Your task to perform on an android device: turn pop-ups off in chrome Image 0: 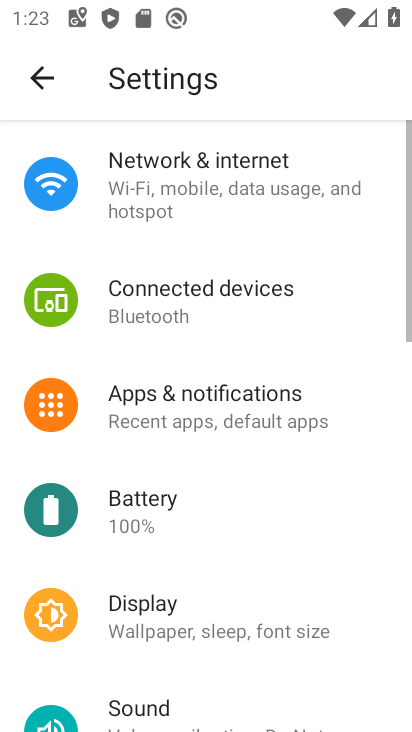
Step 0: drag from (270, 670) to (175, 56)
Your task to perform on an android device: turn pop-ups off in chrome Image 1: 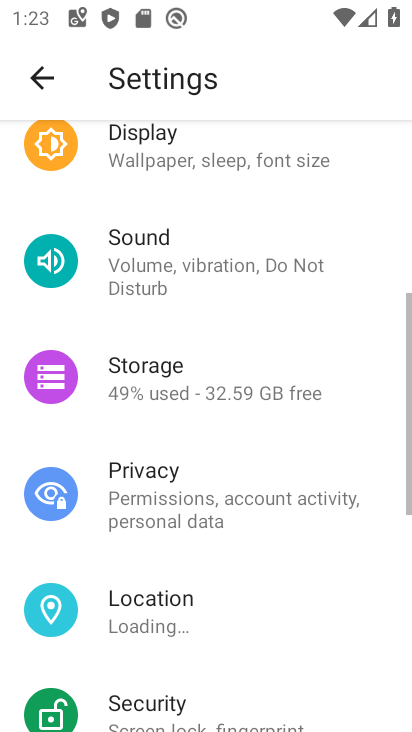
Step 1: click (42, 78)
Your task to perform on an android device: turn pop-ups off in chrome Image 2: 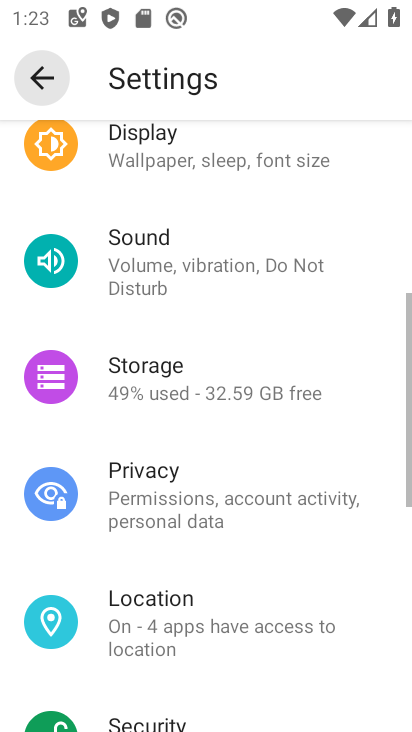
Step 2: click (43, 77)
Your task to perform on an android device: turn pop-ups off in chrome Image 3: 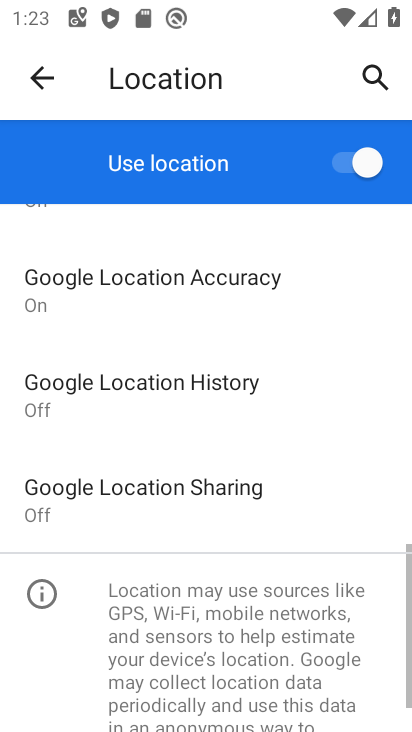
Step 3: click (41, 71)
Your task to perform on an android device: turn pop-ups off in chrome Image 4: 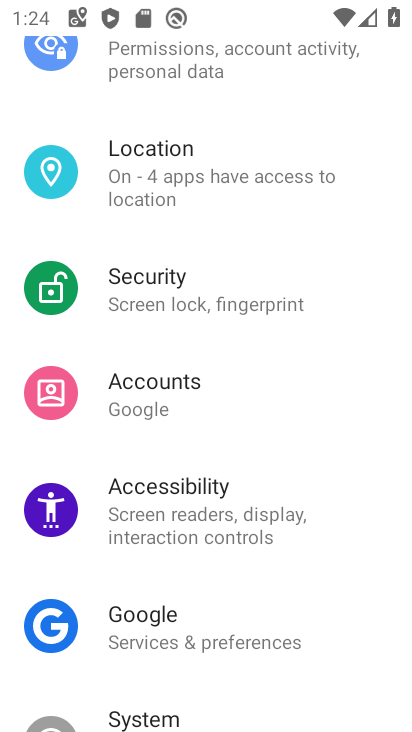
Step 4: press back button
Your task to perform on an android device: turn pop-ups off in chrome Image 5: 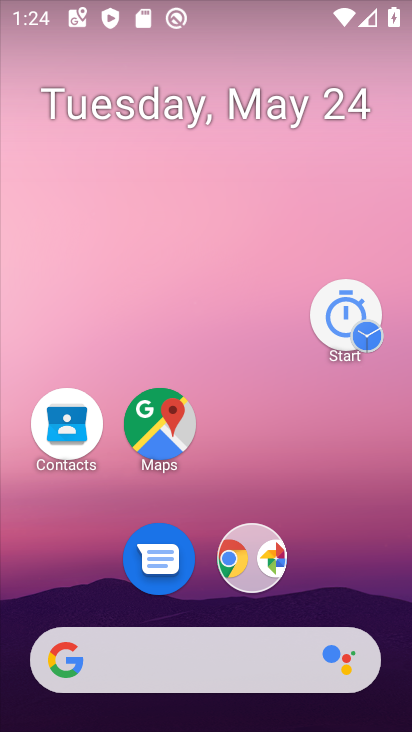
Step 5: drag from (327, 654) to (218, 149)
Your task to perform on an android device: turn pop-ups off in chrome Image 6: 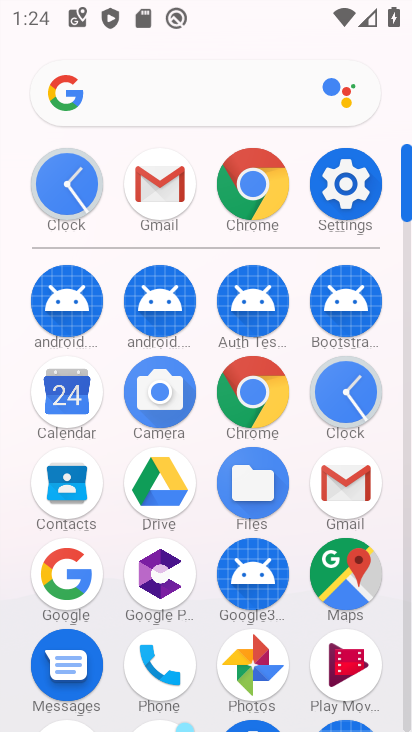
Step 6: click (242, 186)
Your task to perform on an android device: turn pop-ups off in chrome Image 7: 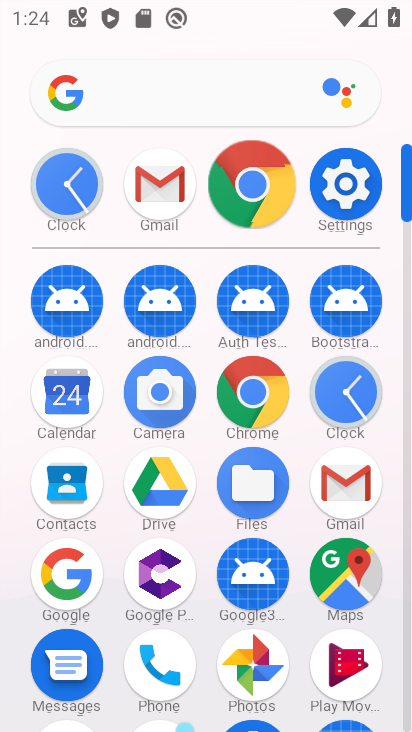
Step 7: click (243, 186)
Your task to perform on an android device: turn pop-ups off in chrome Image 8: 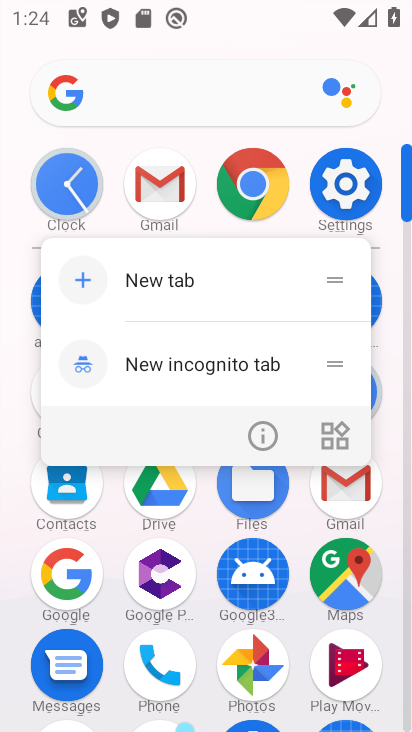
Step 8: click (247, 187)
Your task to perform on an android device: turn pop-ups off in chrome Image 9: 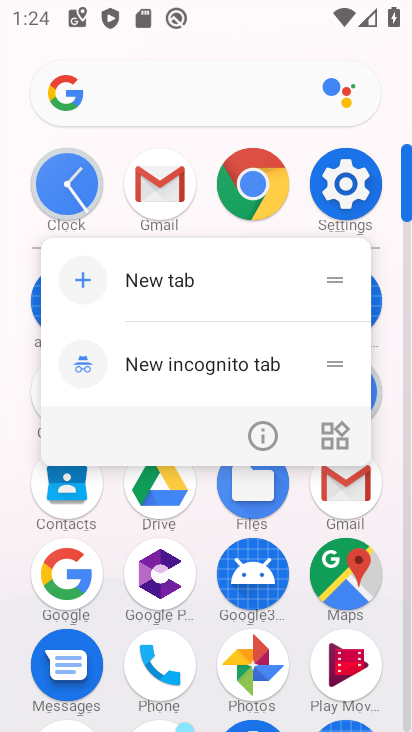
Step 9: click (248, 187)
Your task to perform on an android device: turn pop-ups off in chrome Image 10: 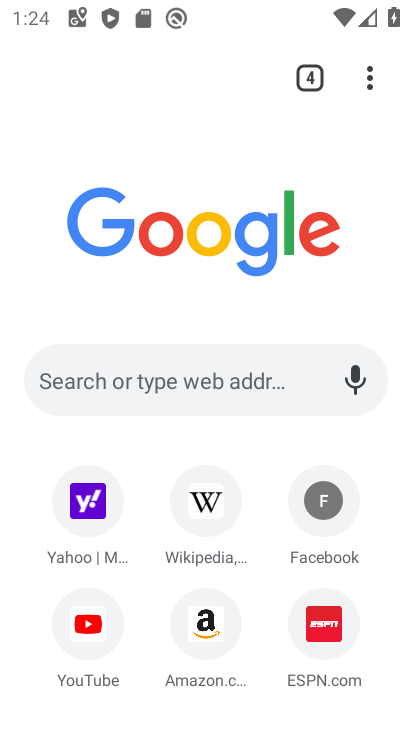
Step 10: drag from (172, 698) to (265, 460)
Your task to perform on an android device: turn pop-ups off in chrome Image 11: 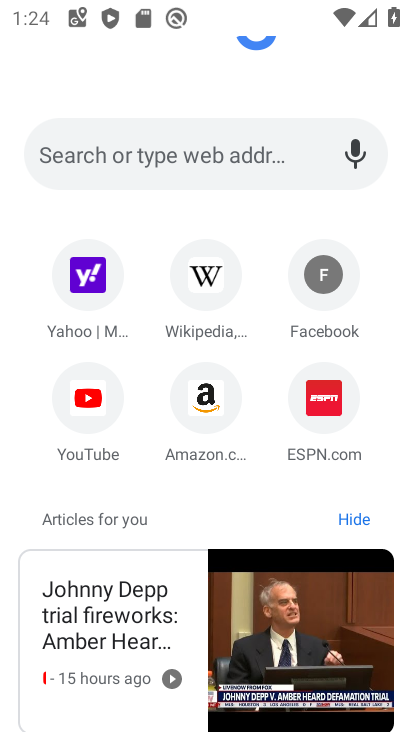
Step 11: drag from (283, 588) to (219, 216)
Your task to perform on an android device: turn pop-ups off in chrome Image 12: 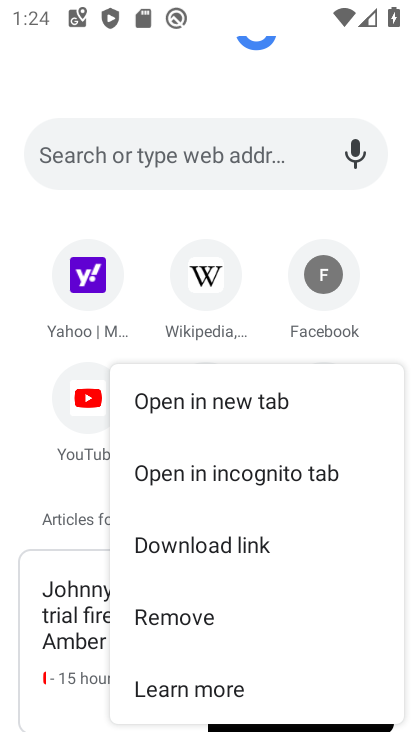
Step 12: drag from (299, 669) to (200, 308)
Your task to perform on an android device: turn pop-ups off in chrome Image 13: 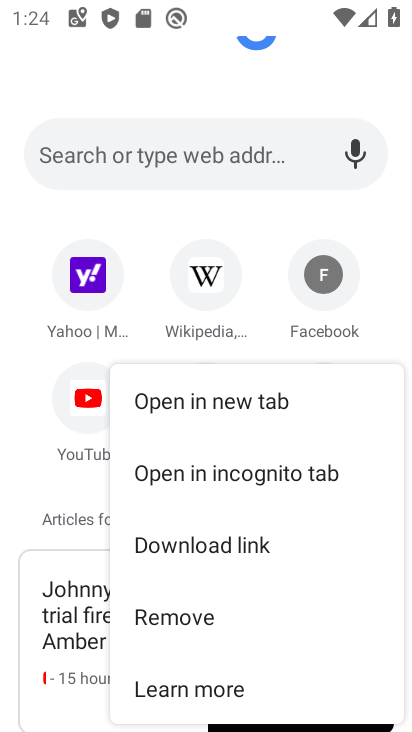
Step 13: press back button
Your task to perform on an android device: turn pop-ups off in chrome Image 14: 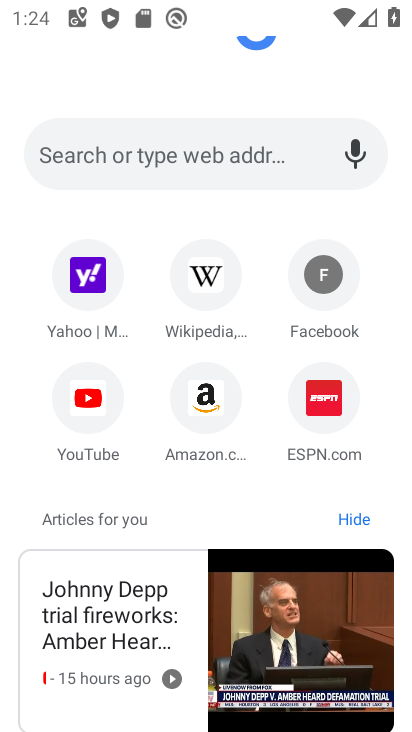
Step 14: drag from (50, 536) to (67, 246)
Your task to perform on an android device: turn pop-ups off in chrome Image 15: 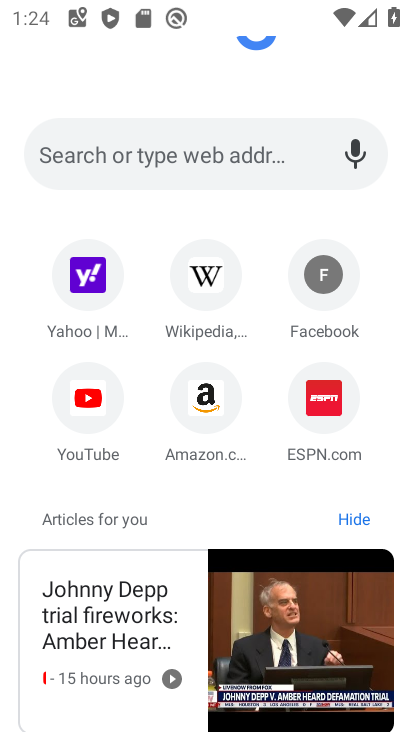
Step 15: drag from (75, 526) to (91, 154)
Your task to perform on an android device: turn pop-ups off in chrome Image 16: 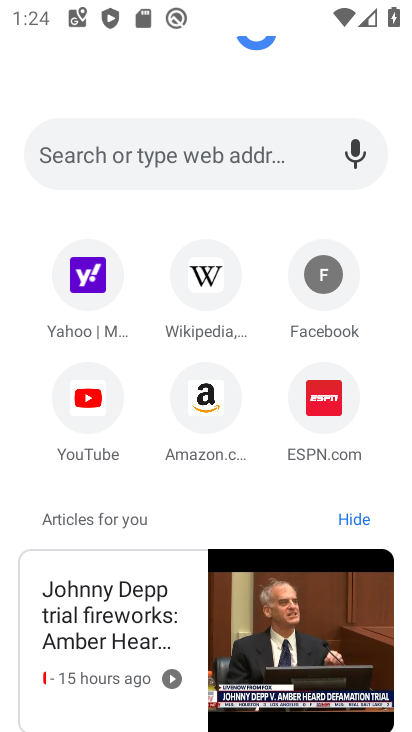
Step 16: drag from (77, 416) to (92, 515)
Your task to perform on an android device: turn pop-ups off in chrome Image 17: 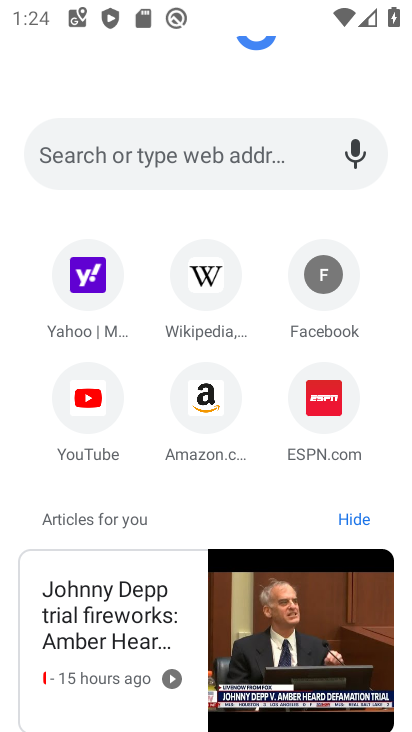
Step 17: press home button
Your task to perform on an android device: turn pop-ups off in chrome Image 18: 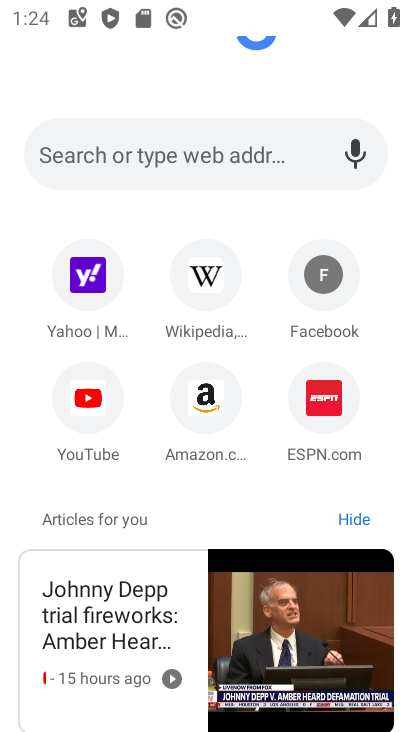
Step 18: press home button
Your task to perform on an android device: turn pop-ups off in chrome Image 19: 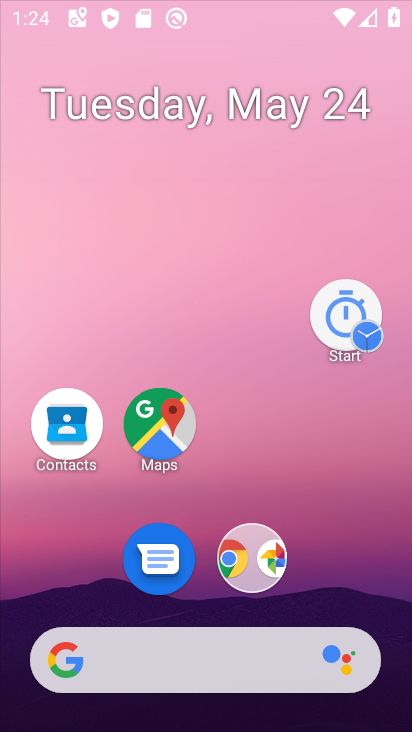
Step 19: press home button
Your task to perform on an android device: turn pop-ups off in chrome Image 20: 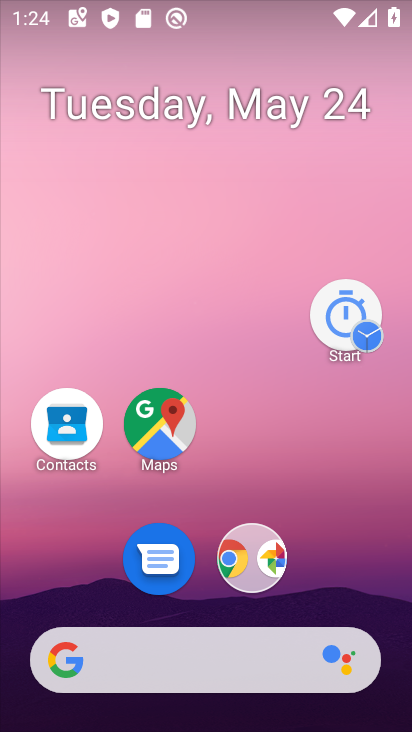
Step 20: drag from (353, 668) to (278, 69)
Your task to perform on an android device: turn pop-ups off in chrome Image 21: 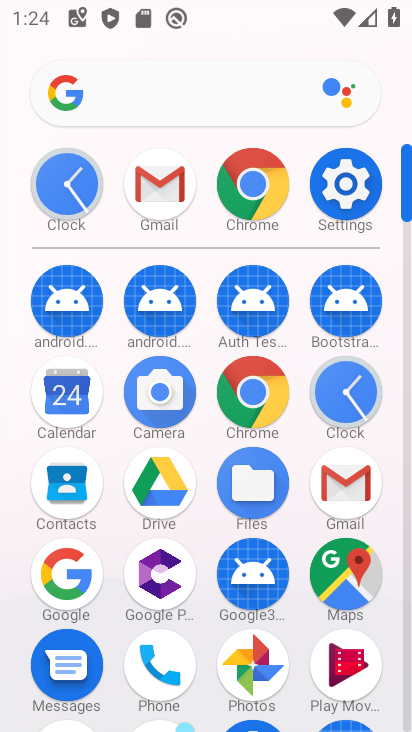
Step 21: click (254, 168)
Your task to perform on an android device: turn pop-ups off in chrome Image 22: 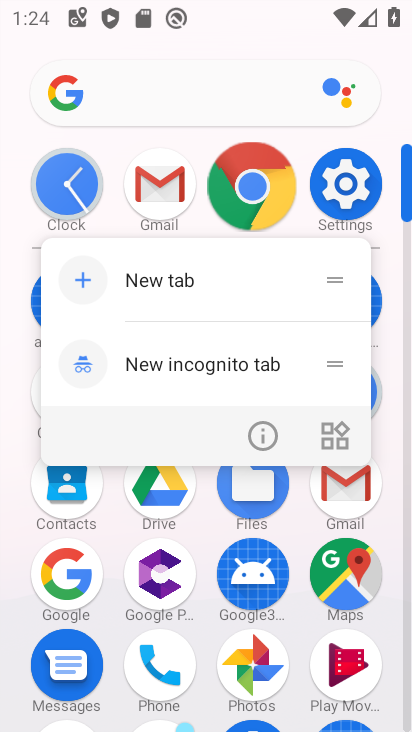
Step 22: click (256, 174)
Your task to perform on an android device: turn pop-ups off in chrome Image 23: 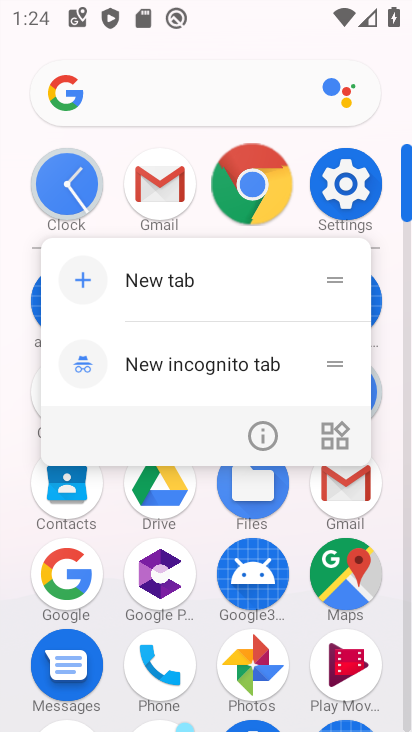
Step 23: click (254, 175)
Your task to perform on an android device: turn pop-ups off in chrome Image 24: 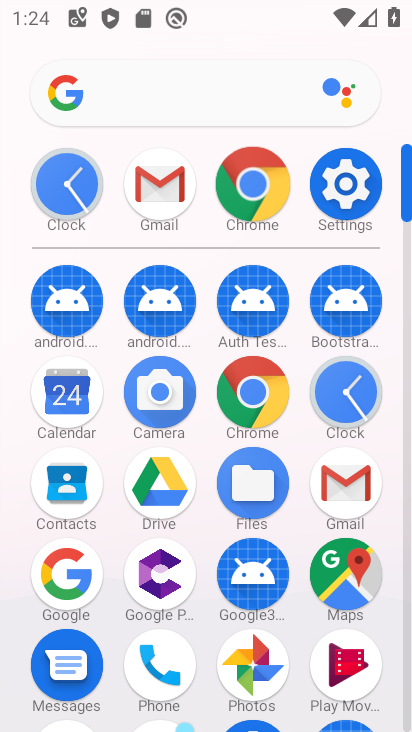
Step 24: click (253, 177)
Your task to perform on an android device: turn pop-ups off in chrome Image 25: 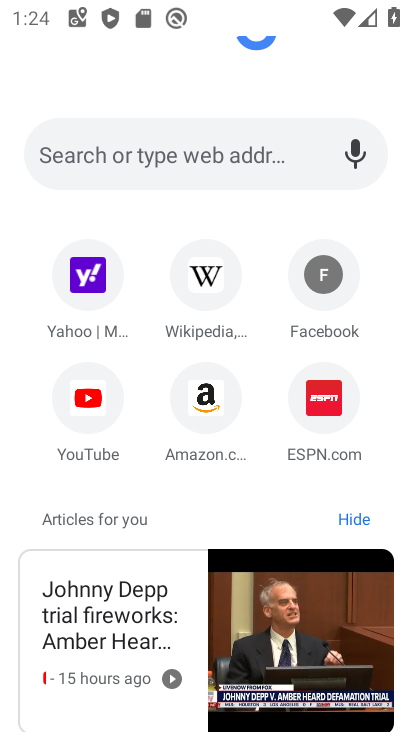
Step 25: drag from (339, 155) to (266, 554)
Your task to perform on an android device: turn pop-ups off in chrome Image 26: 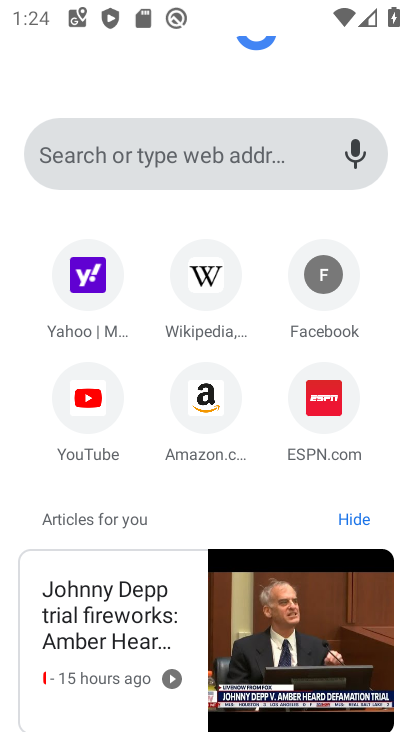
Step 26: drag from (235, 233) to (247, 564)
Your task to perform on an android device: turn pop-ups off in chrome Image 27: 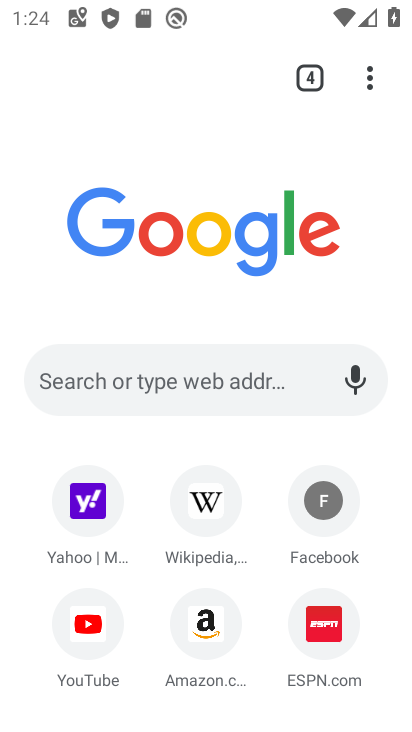
Step 27: drag from (200, 204) to (221, 569)
Your task to perform on an android device: turn pop-ups off in chrome Image 28: 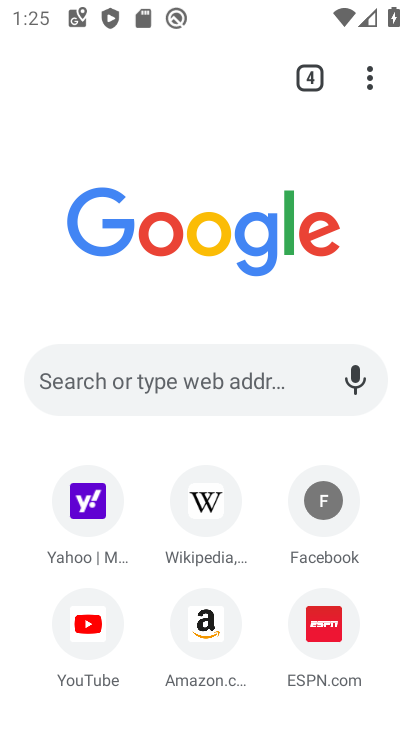
Step 28: click (362, 81)
Your task to perform on an android device: turn pop-ups off in chrome Image 29: 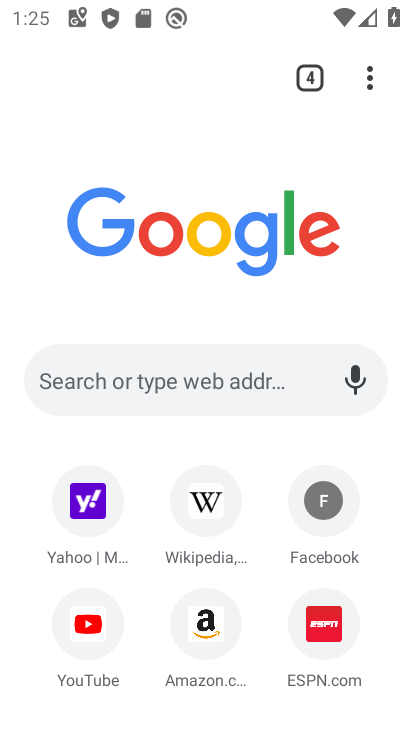
Step 29: click (371, 78)
Your task to perform on an android device: turn pop-ups off in chrome Image 30: 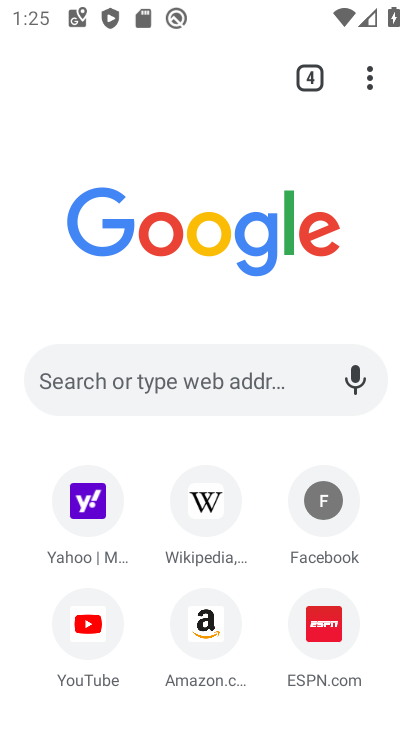
Step 30: drag from (365, 83) to (81, 656)
Your task to perform on an android device: turn pop-ups off in chrome Image 31: 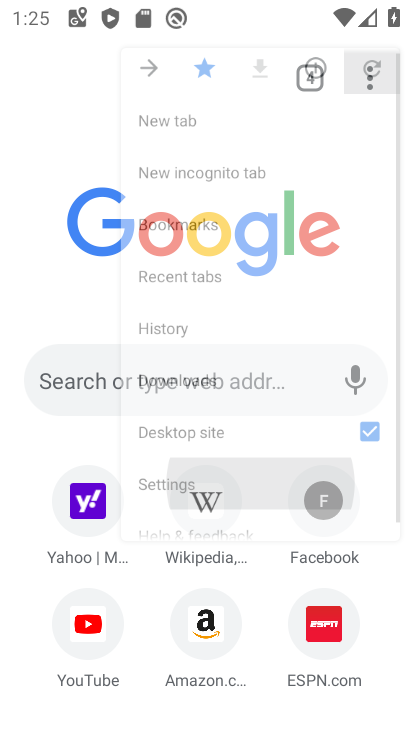
Step 31: click (82, 645)
Your task to perform on an android device: turn pop-ups off in chrome Image 32: 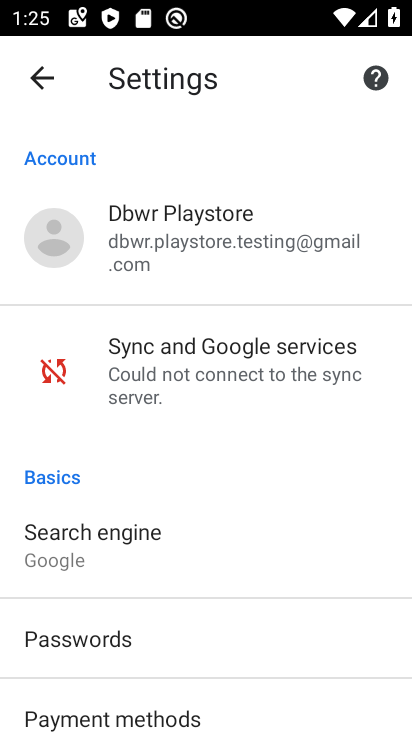
Step 32: drag from (136, 462) to (183, 137)
Your task to perform on an android device: turn pop-ups off in chrome Image 33: 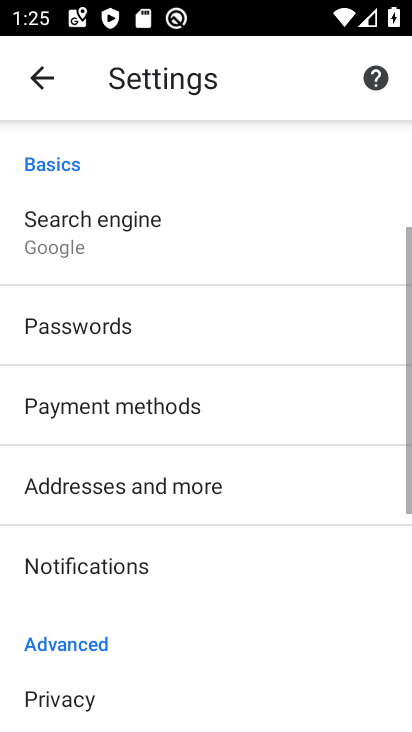
Step 33: drag from (182, 493) to (192, 67)
Your task to perform on an android device: turn pop-ups off in chrome Image 34: 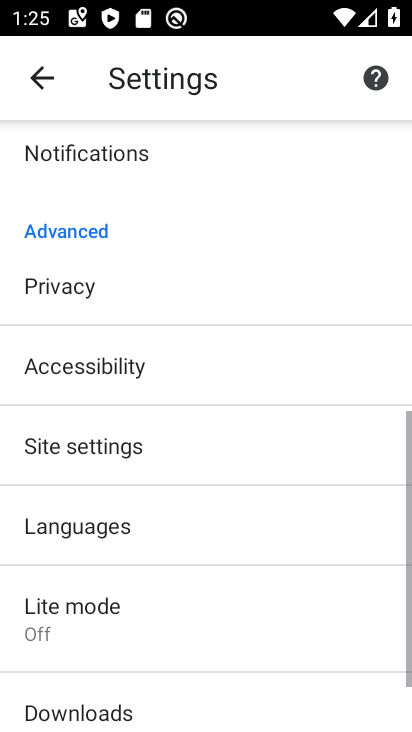
Step 34: drag from (182, 208) to (158, 0)
Your task to perform on an android device: turn pop-ups off in chrome Image 35: 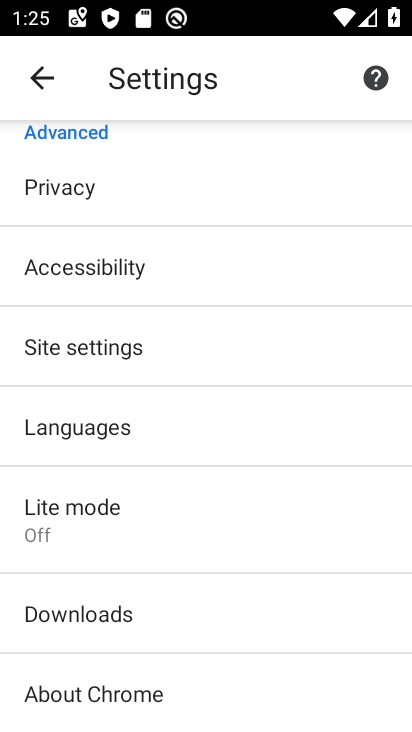
Step 35: click (67, 346)
Your task to perform on an android device: turn pop-ups off in chrome Image 36: 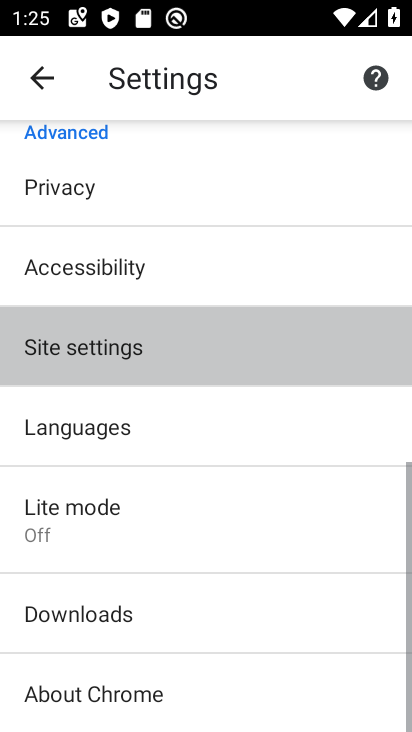
Step 36: click (68, 347)
Your task to perform on an android device: turn pop-ups off in chrome Image 37: 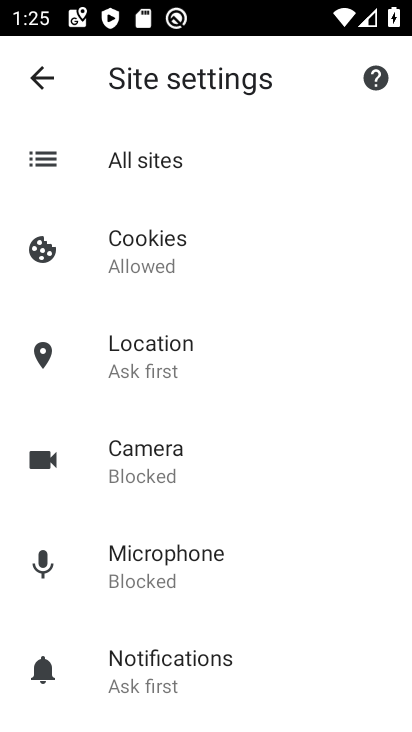
Step 37: drag from (186, 484) to (116, 225)
Your task to perform on an android device: turn pop-ups off in chrome Image 38: 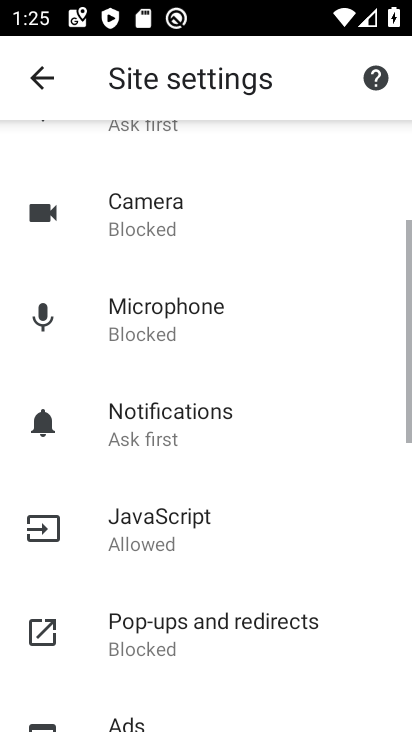
Step 38: drag from (170, 417) to (134, 109)
Your task to perform on an android device: turn pop-ups off in chrome Image 39: 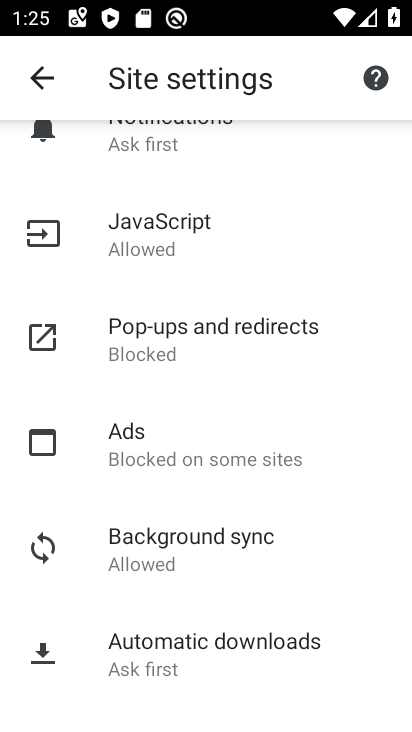
Step 39: drag from (141, 229) to (198, 519)
Your task to perform on an android device: turn pop-ups off in chrome Image 40: 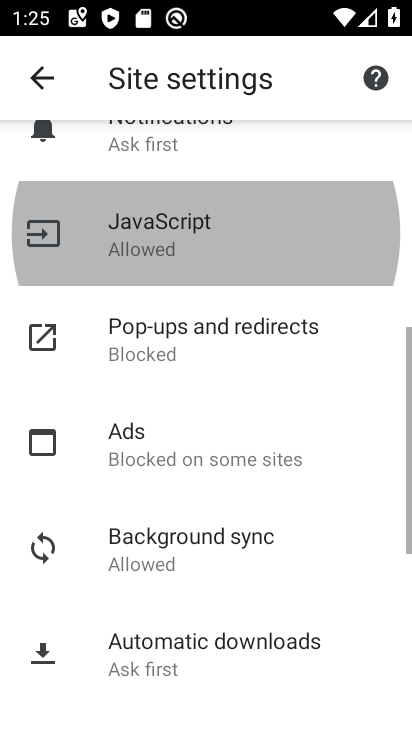
Step 40: drag from (156, 342) to (156, 450)
Your task to perform on an android device: turn pop-ups off in chrome Image 41: 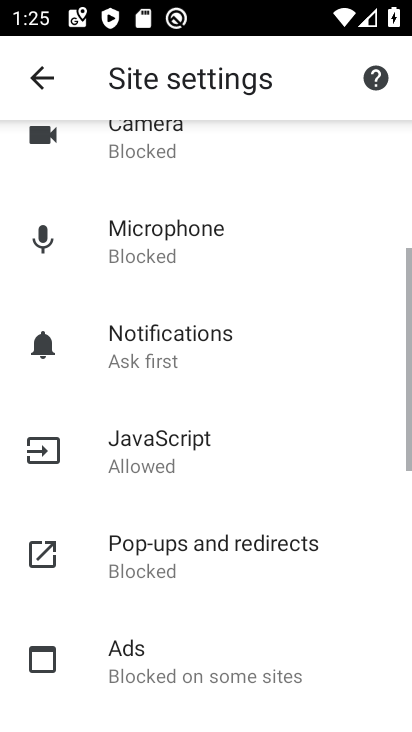
Step 41: drag from (120, 298) to (131, 479)
Your task to perform on an android device: turn pop-ups off in chrome Image 42: 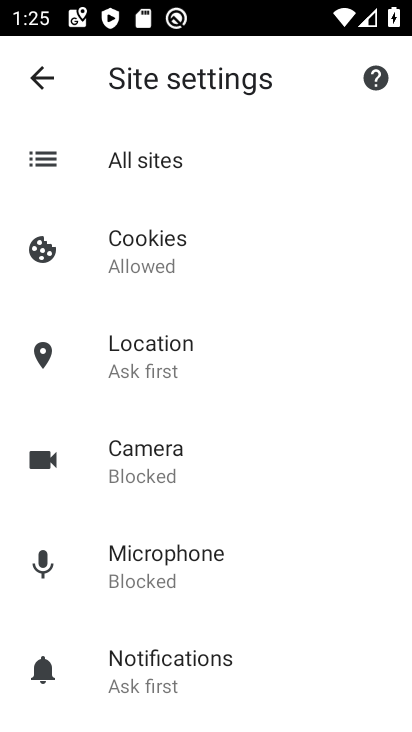
Step 42: drag from (199, 570) to (198, 163)
Your task to perform on an android device: turn pop-ups off in chrome Image 43: 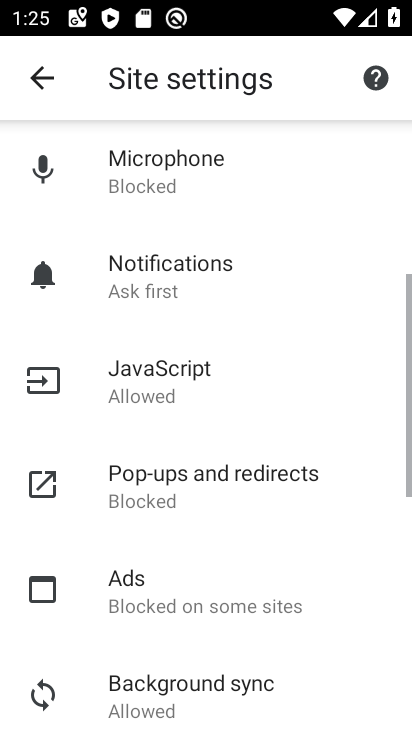
Step 43: drag from (188, 494) to (195, 380)
Your task to perform on an android device: turn pop-ups off in chrome Image 44: 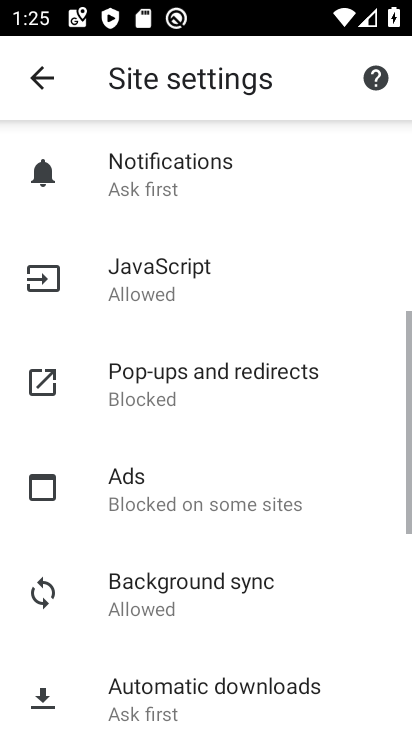
Step 44: click (156, 416)
Your task to perform on an android device: turn pop-ups off in chrome Image 45: 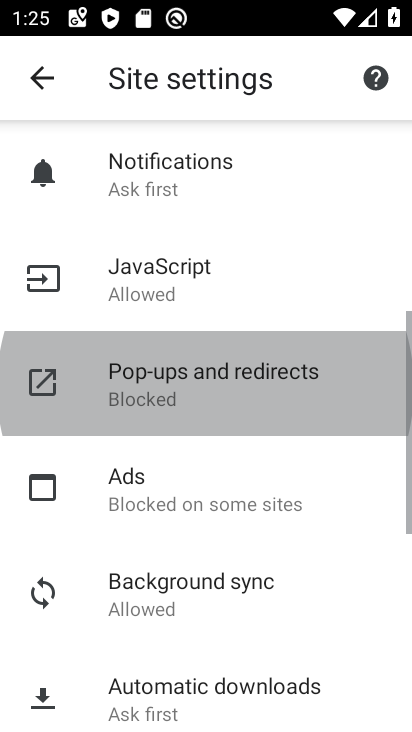
Step 45: click (152, 387)
Your task to perform on an android device: turn pop-ups off in chrome Image 46: 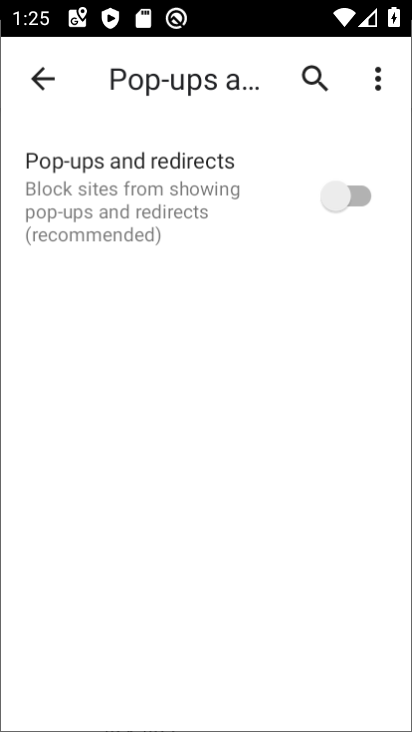
Step 46: click (152, 387)
Your task to perform on an android device: turn pop-ups off in chrome Image 47: 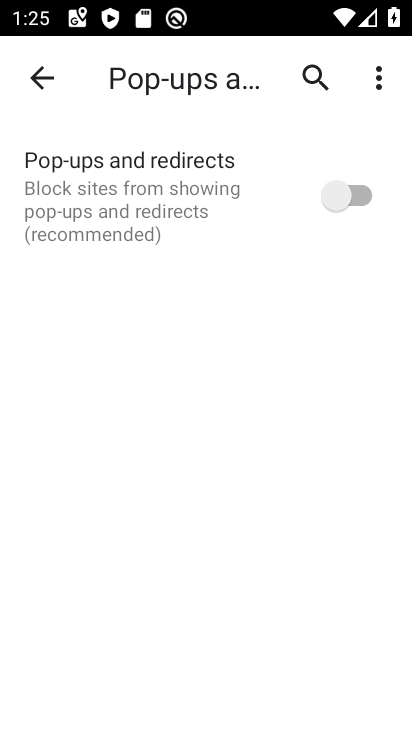
Step 47: click (152, 387)
Your task to perform on an android device: turn pop-ups off in chrome Image 48: 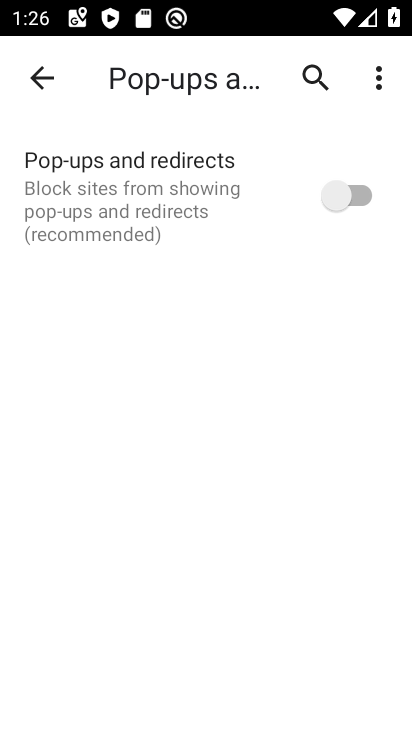
Step 48: task complete